Your task to perform on an android device: Open the web browser Image 0: 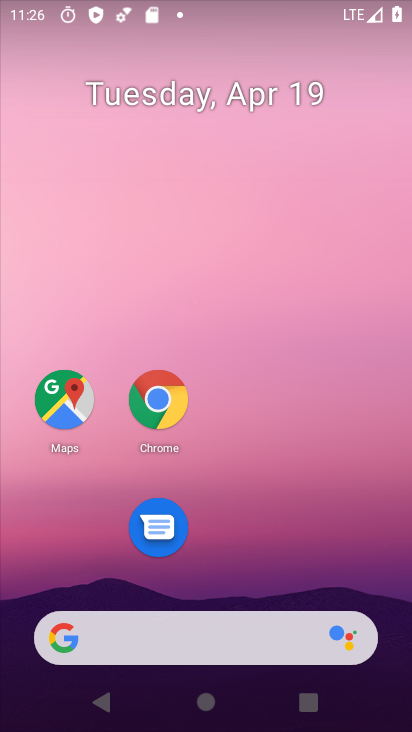
Step 0: drag from (254, 668) to (259, 77)
Your task to perform on an android device: Open the web browser Image 1: 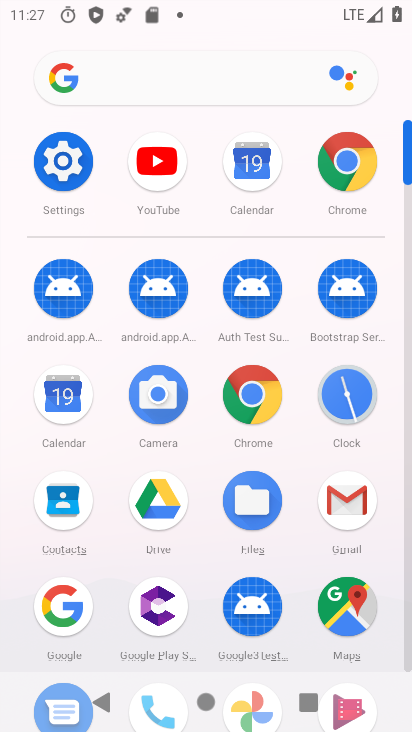
Step 1: click (340, 180)
Your task to perform on an android device: Open the web browser Image 2: 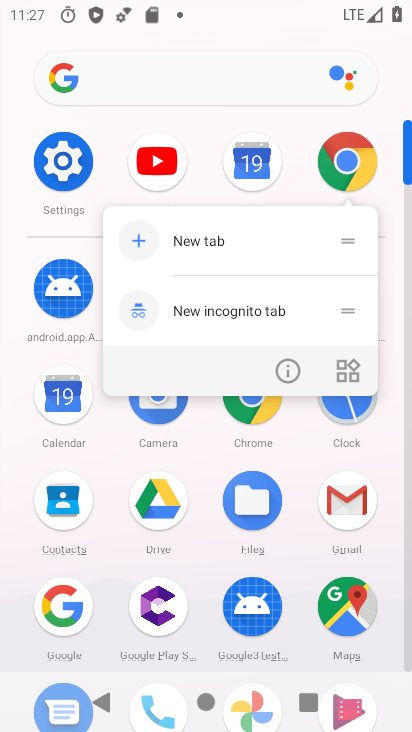
Step 2: click (348, 167)
Your task to perform on an android device: Open the web browser Image 3: 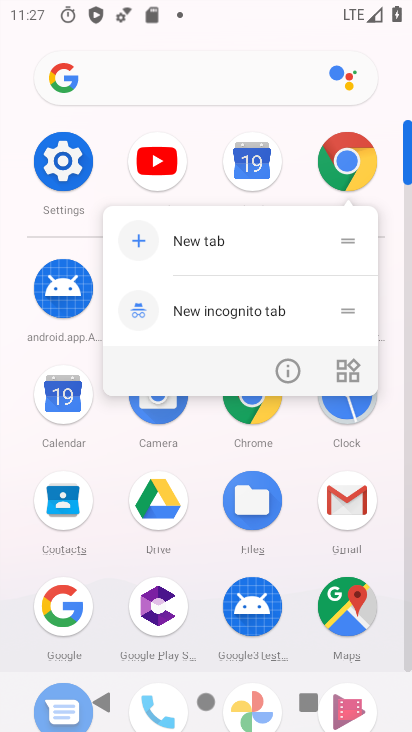
Step 3: click (351, 157)
Your task to perform on an android device: Open the web browser Image 4: 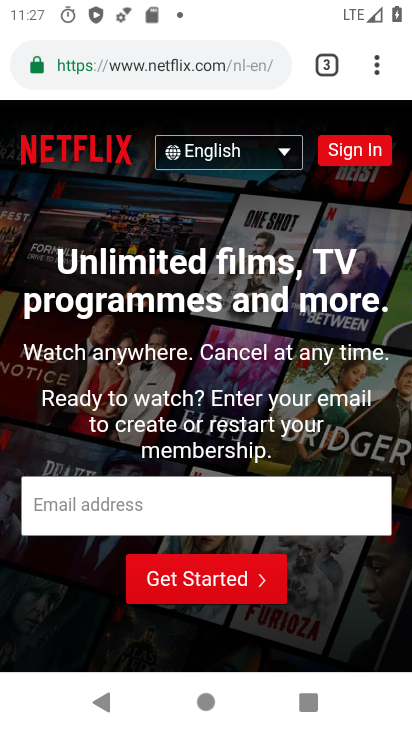
Step 4: click (238, 60)
Your task to perform on an android device: Open the web browser Image 5: 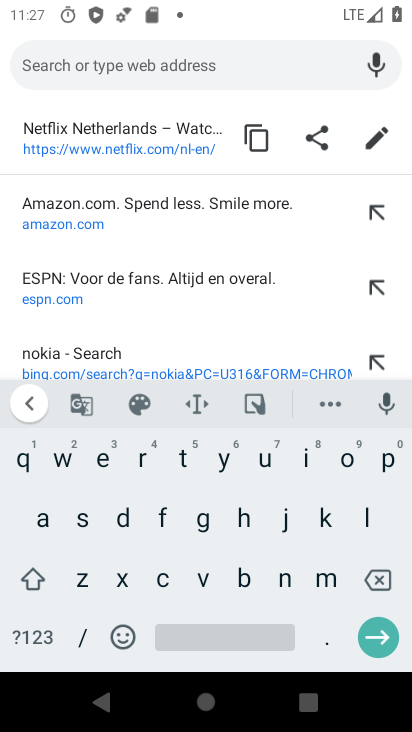
Step 5: task complete